Your task to perform on an android device: Open ESPN.com Image 0: 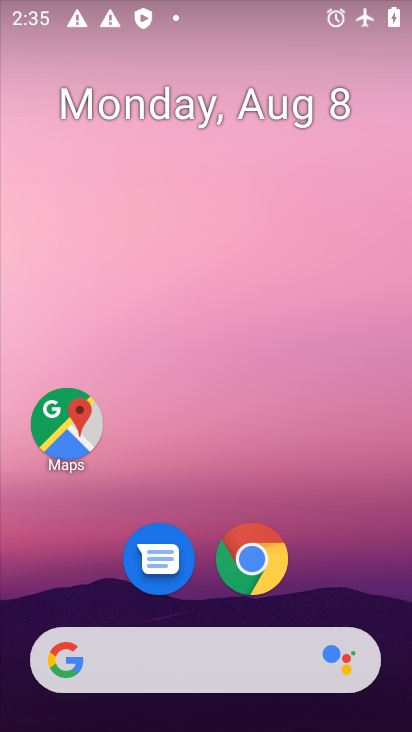
Step 0: click (255, 560)
Your task to perform on an android device: Open ESPN.com Image 1: 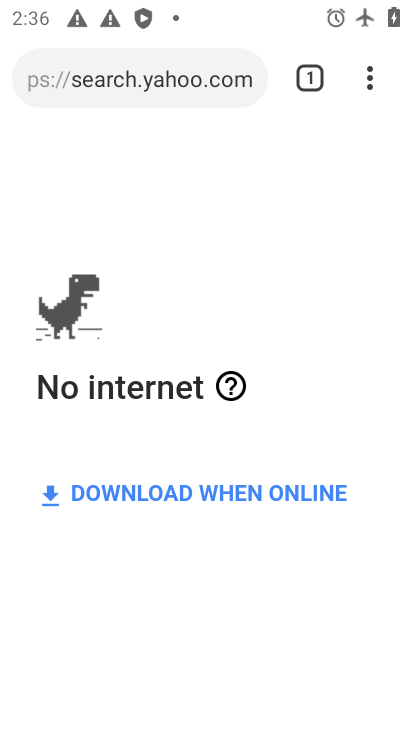
Step 1: click (201, 84)
Your task to perform on an android device: Open ESPN.com Image 2: 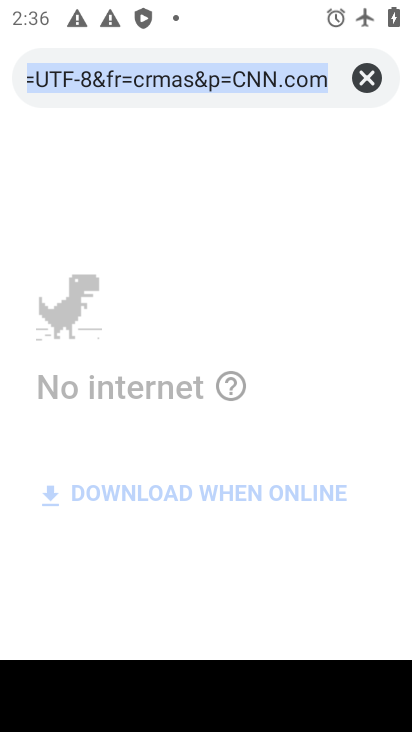
Step 2: type "ESPN.com"
Your task to perform on an android device: Open ESPN.com Image 3: 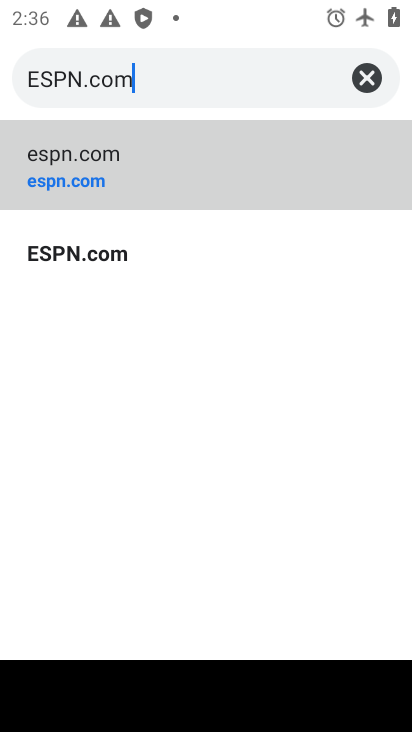
Step 3: click (103, 254)
Your task to perform on an android device: Open ESPN.com Image 4: 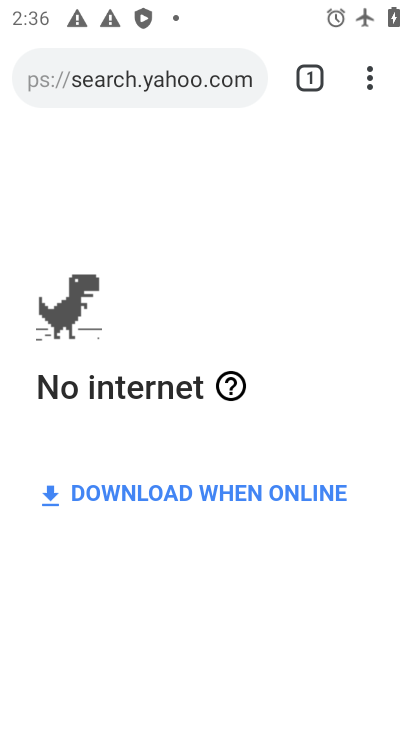
Step 4: task complete